Your task to perform on an android device: empty trash in google photos Image 0: 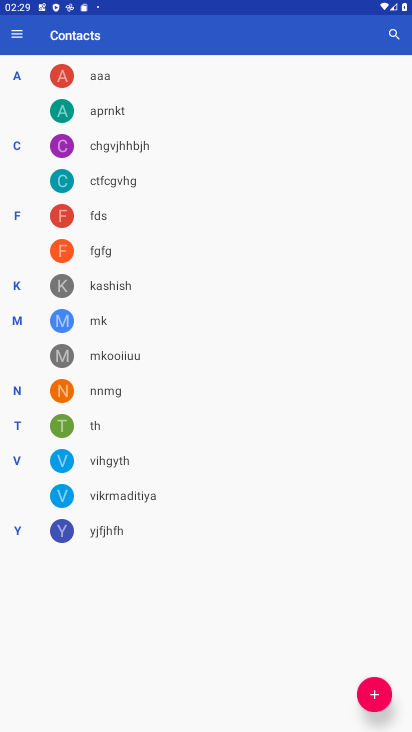
Step 0: press home button
Your task to perform on an android device: empty trash in google photos Image 1: 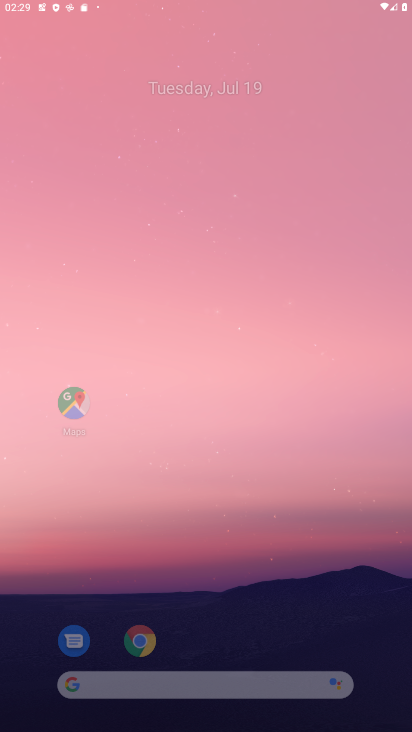
Step 1: drag from (211, 637) to (245, 254)
Your task to perform on an android device: empty trash in google photos Image 2: 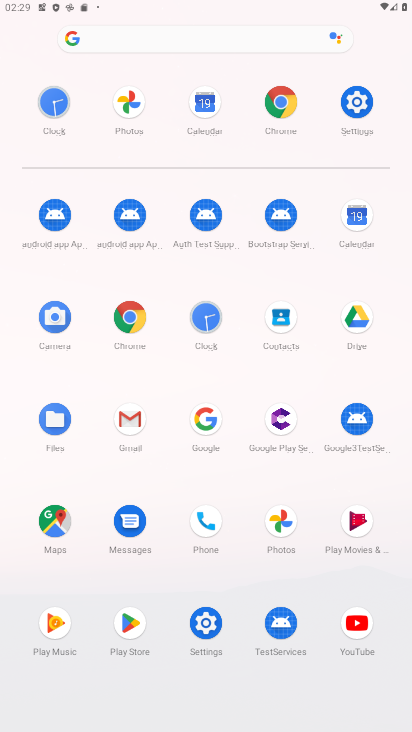
Step 2: click (269, 528)
Your task to perform on an android device: empty trash in google photos Image 3: 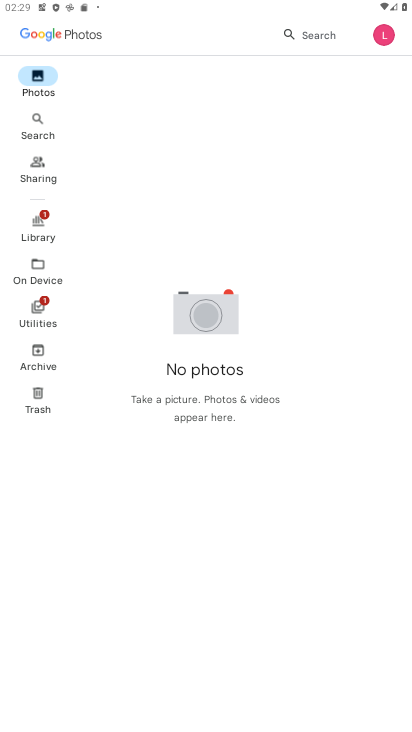
Step 3: click (23, 230)
Your task to perform on an android device: empty trash in google photos Image 4: 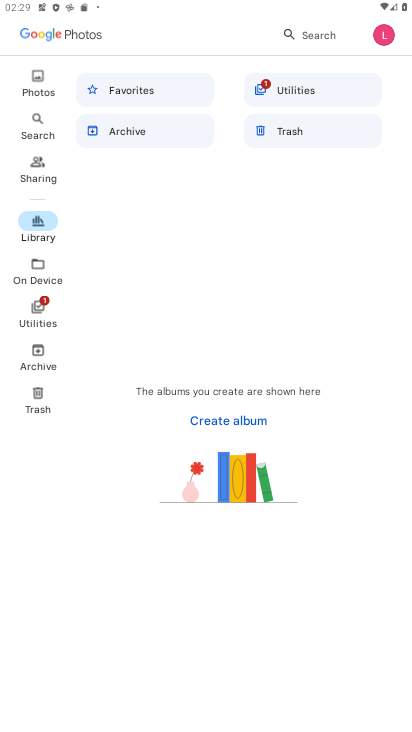
Step 4: click (288, 136)
Your task to perform on an android device: empty trash in google photos Image 5: 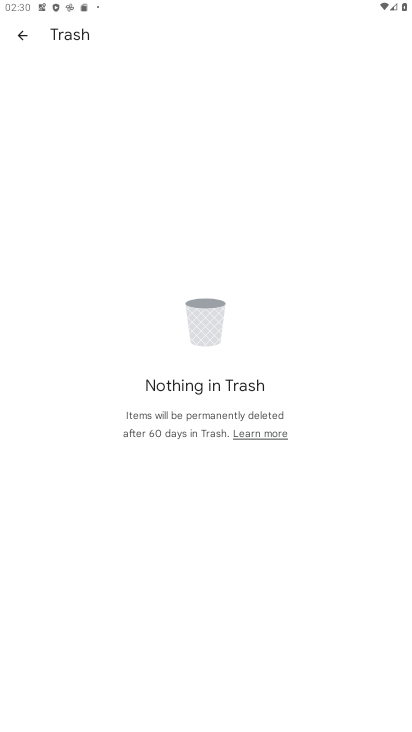
Step 5: task complete